Your task to perform on an android device: change keyboard looks Image 0: 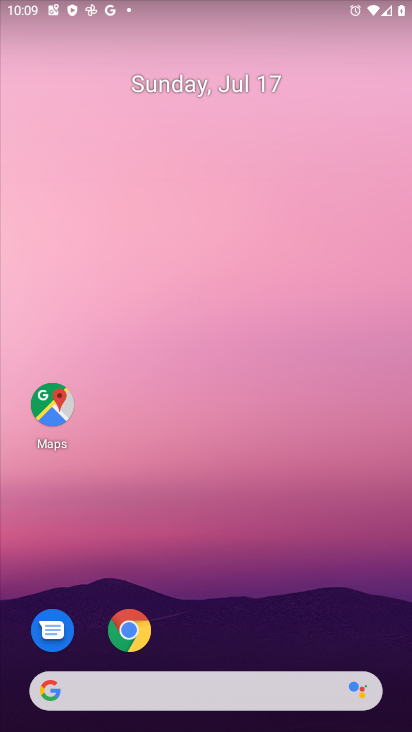
Step 0: drag from (195, 607) to (193, 204)
Your task to perform on an android device: change keyboard looks Image 1: 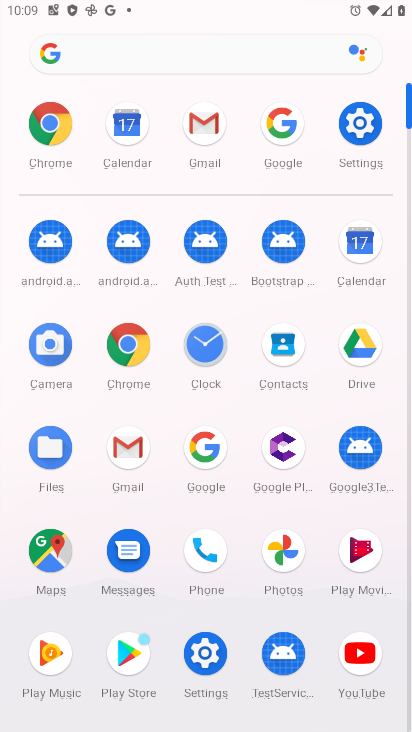
Step 1: click (202, 671)
Your task to perform on an android device: change keyboard looks Image 2: 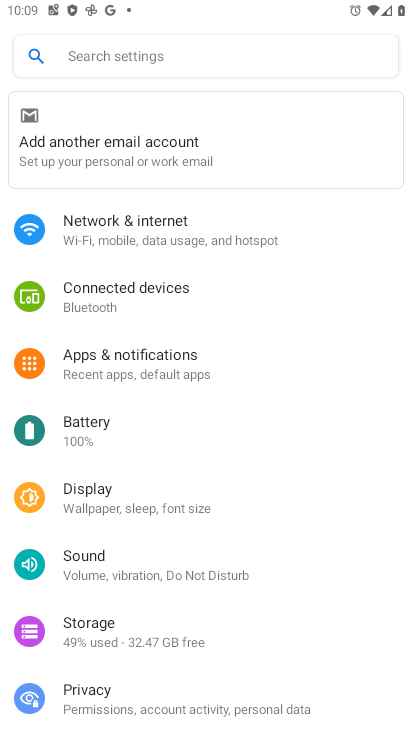
Step 2: drag from (183, 565) to (188, 237)
Your task to perform on an android device: change keyboard looks Image 3: 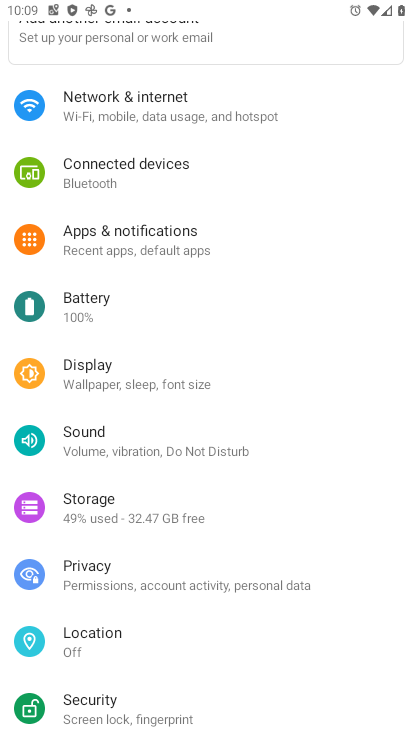
Step 3: drag from (131, 662) to (131, 469)
Your task to perform on an android device: change keyboard looks Image 4: 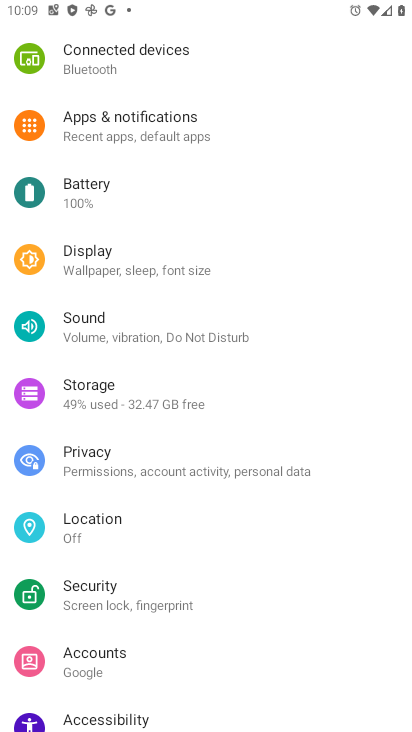
Step 4: drag from (111, 627) to (131, 340)
Your task to perform on an android device: change keyboard looks Image 5: 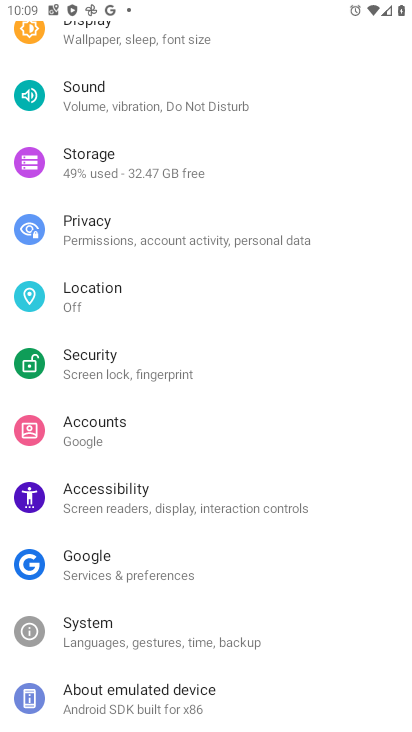
Step 5: click (83, 631)
Your task to perform on an android device: change keyboard looks Image 6: 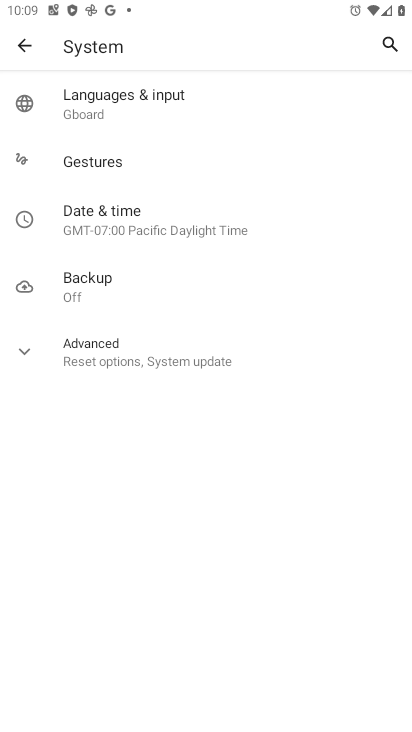
Step 6: click (83, 631)
Your task to perform on an android device: change keyboard looks Image 7: 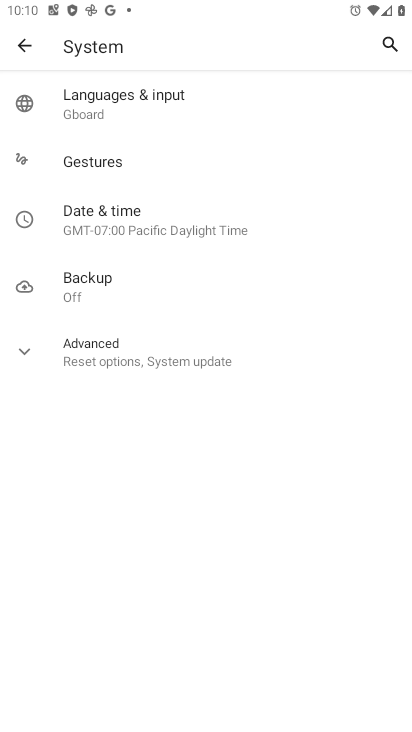
Step 7: click (104, 100)
Your task to perform on an android device: change keyboard looks Image 8: 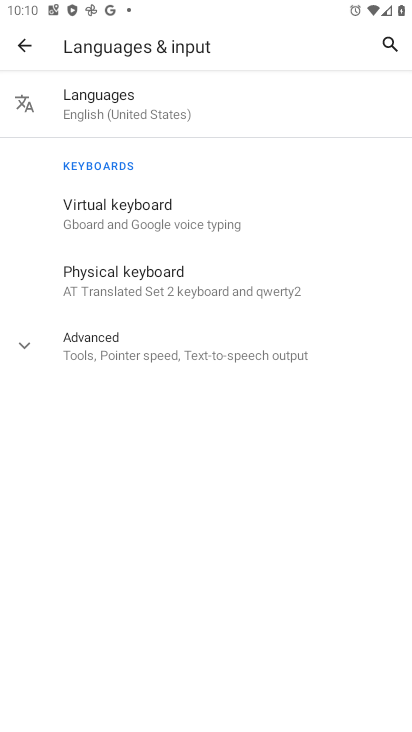
Step 8: click (78, 348)
Your task to perform on an android device: change keyboard looks Image 9: 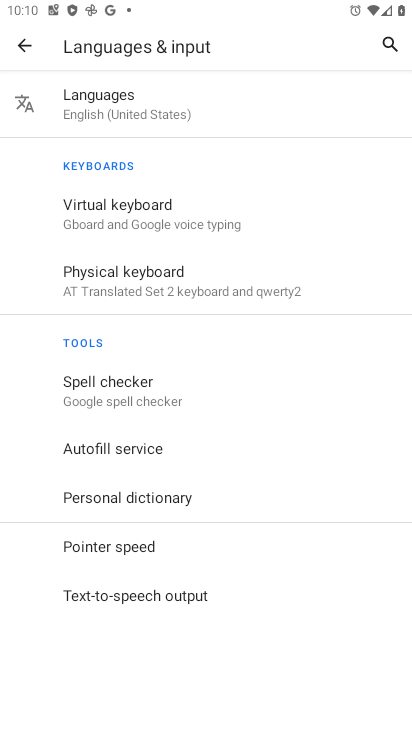
Step 9: click (82, 209)
Your task to perform on an android device: change keyboard looks Image 10: 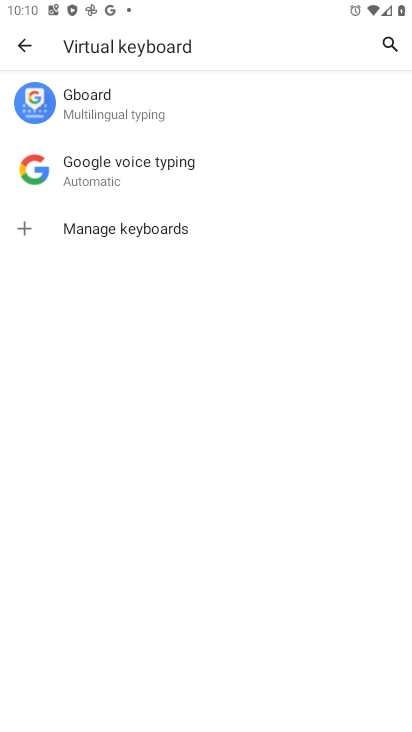
Step 10: click (109, 102)
Your task to perform on an android device: change keyboard looks Image 11: 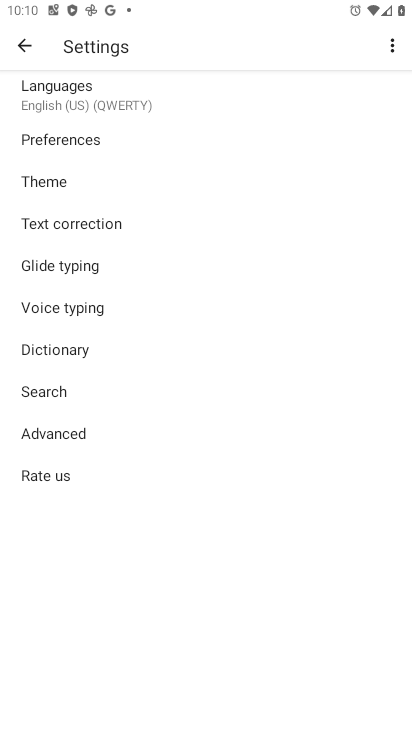
Step 11: click (56, 192)
Your task to perform on an android device: change keyboard looks Image 12: 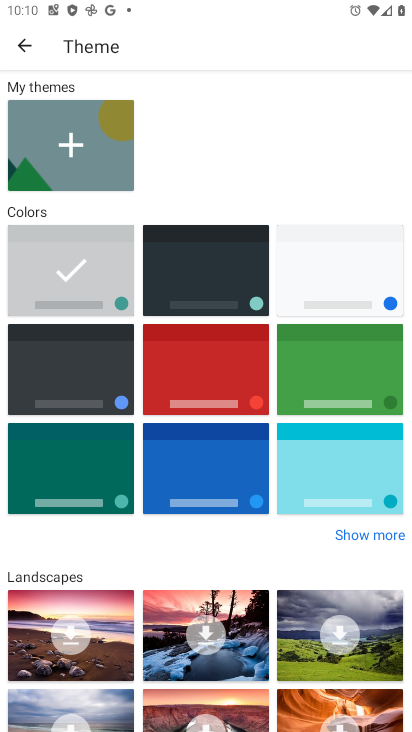
Step 12: click (248, 245)
Your task to perform on an android device: change keyboard looks Image 13: 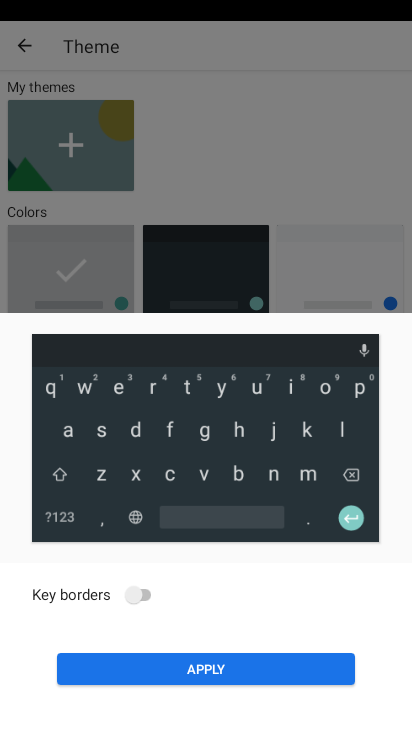
Step 13: click (179, 672)
Your task to perform on an android device: change keyboard looks Image 14: 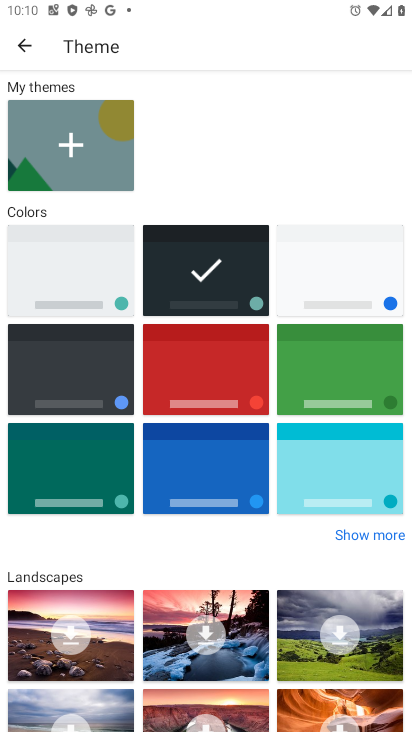
Step 14: task complete